Your task to perform on an android device: Go to settings Image 0: 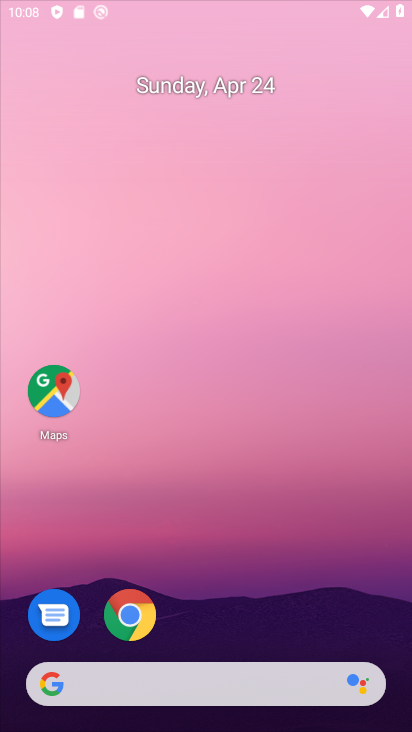
Step 0: click (182, 91)
Your task to perform on an android device: Go to settings Image 1: 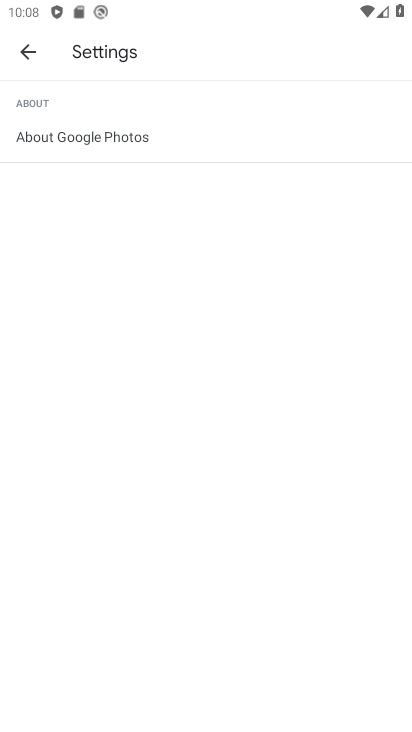
Step 1: press home button
Your task to perform on an android device: Go to settings Image 2: 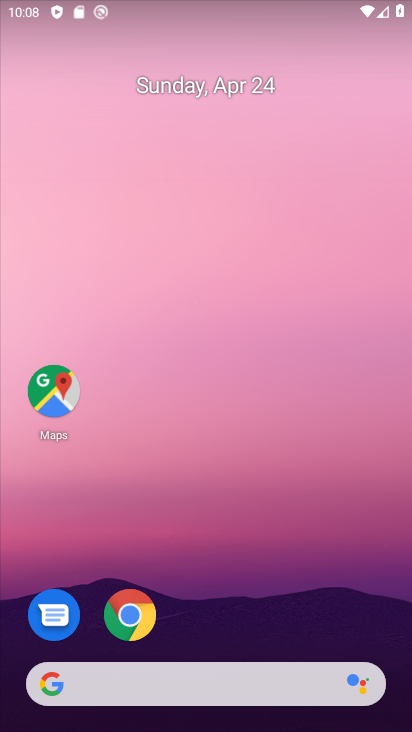
Step 2: drag from (208, 648) to (176, 103)
Your task to perform on an android device: Go to settings Image 3: 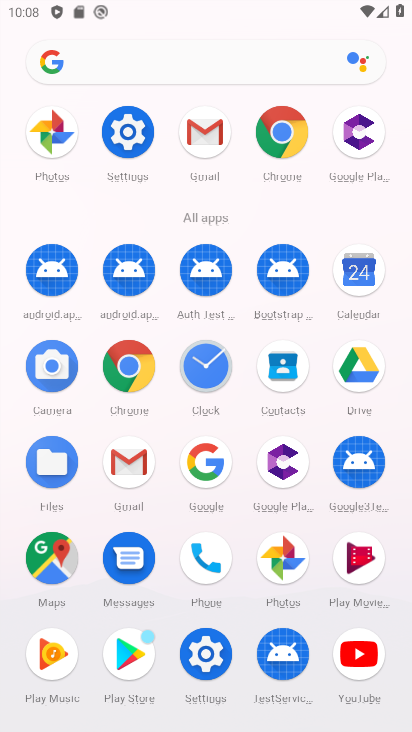
Step 3: click (126, 124)
Your task to perform on an android device: Go to settings Image 4: 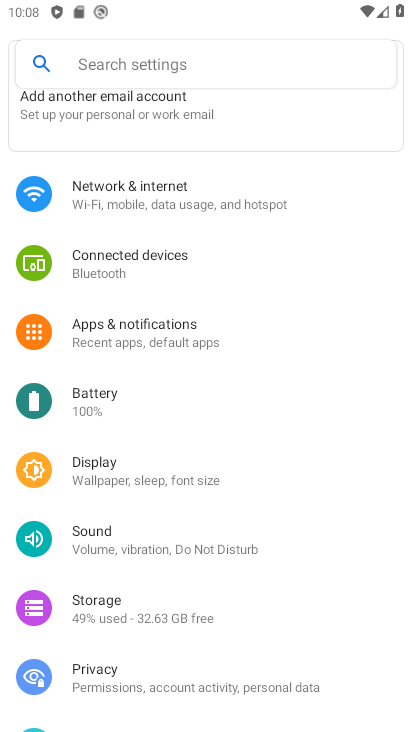
Step 4: task complete